Your task to perform on an android device: change keyboard looks Image 0: 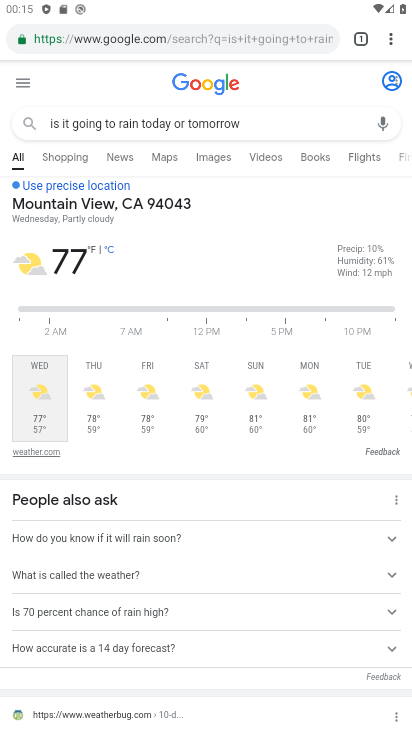
Step 0: press back button
Your task to perform on an android device: change keyboard looks Image 1: 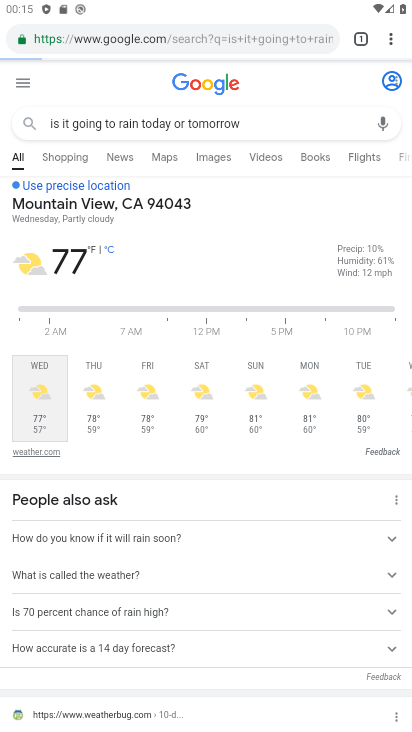
Step 1: press back button
Your task to perform on an android device: change keyboard looks Image 2: 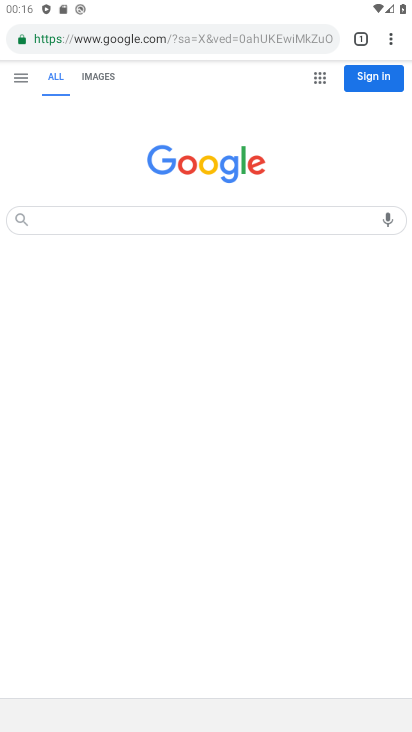
Step 2: press home button
Your task to perform on an android device: change keyboard looks Image 3: 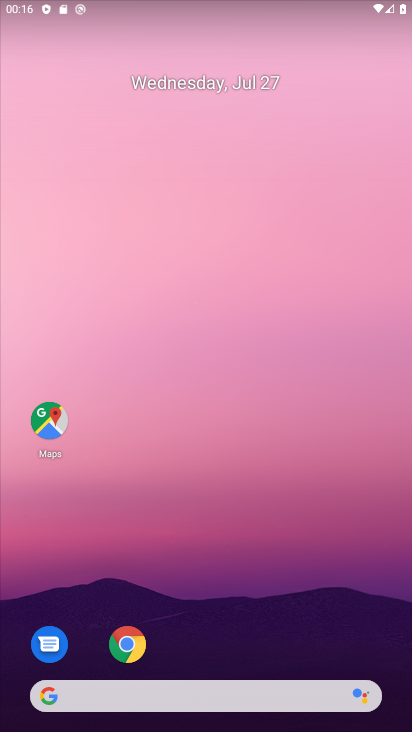
Step 3: drag from (126, 559) to (69, 146)
Your task to perform on an android device: change keyboard looks Image 4: 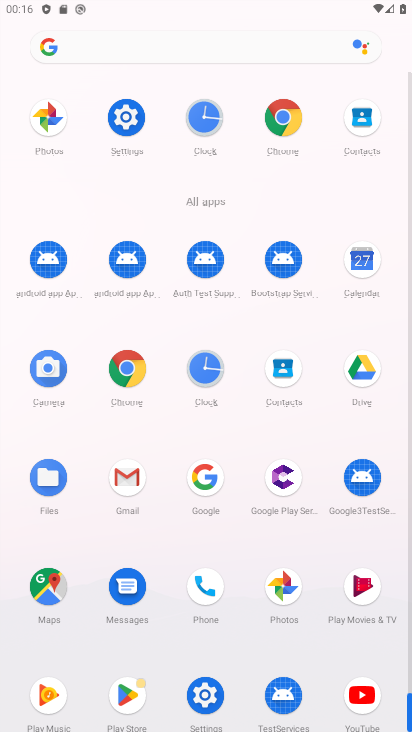
Step 4: click (206, 691)
Your task to perform on an android device: change keyboard looks Image 5: 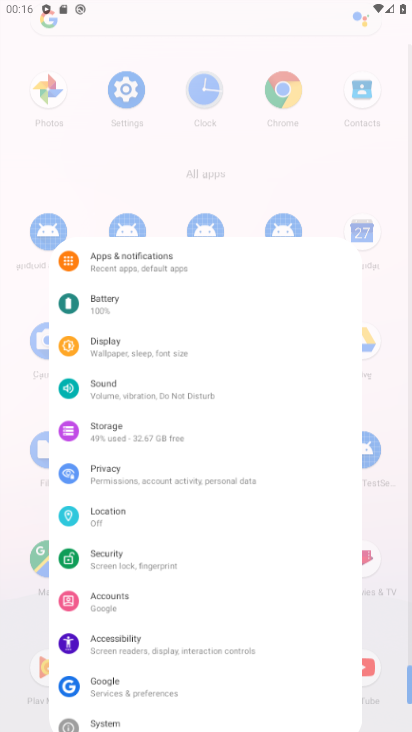
Step 5: click (204, 690)
Your task to perform on an android device: change keyboard looks Image 6: 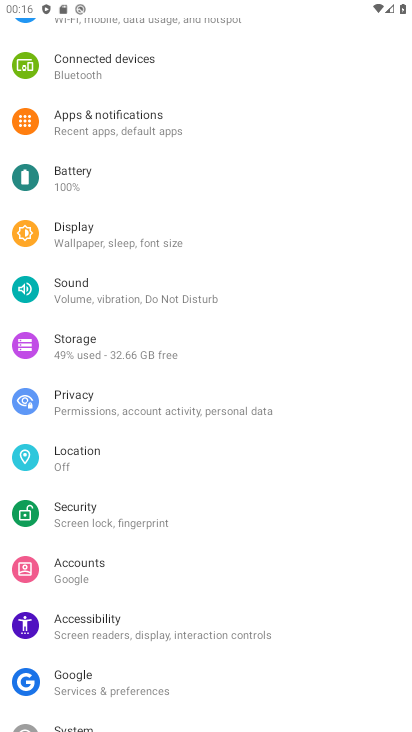
Step 6: drag from (143, 536) to (125, 278)
Your task to perform on an android device: change keyboard looks Image 7: 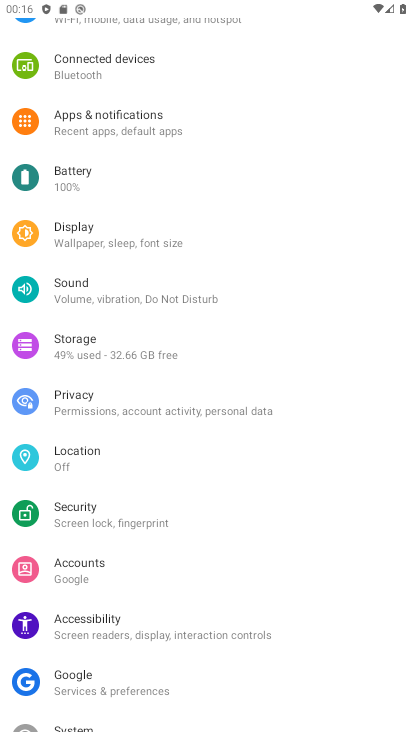
Step 7: drag from (148, 644) to (162, 200)
Your task to perform on an android device: change keyboard looks Image 8: 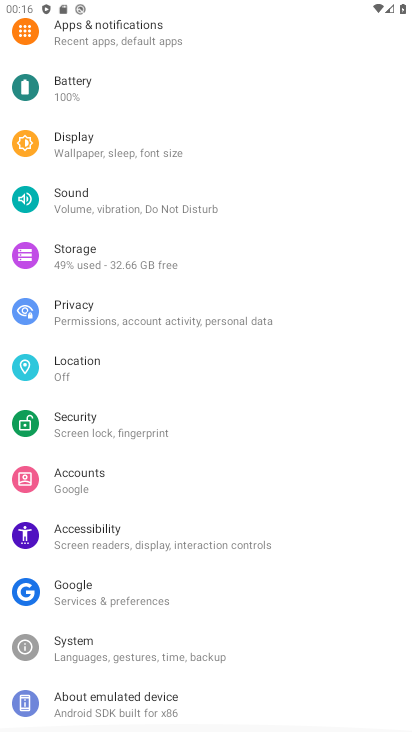
Step 8: click (210, 146)
Your task to perform on an android device: change keyboard looks Image 9: 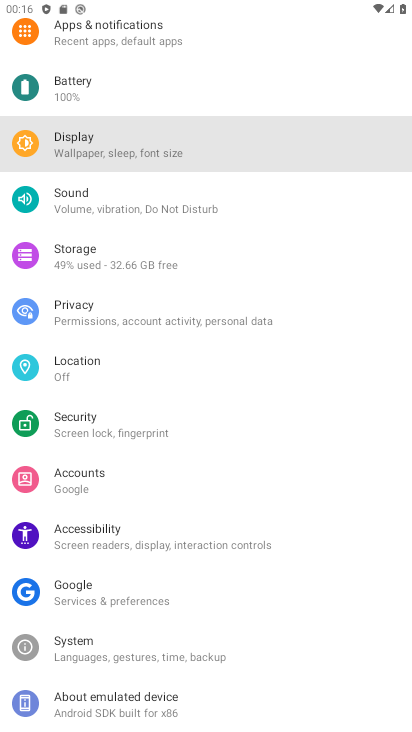
Step 9: drag from (181, 502) to (58, 312)
Your task to perform on an android device: change keyboard looks Image 10: 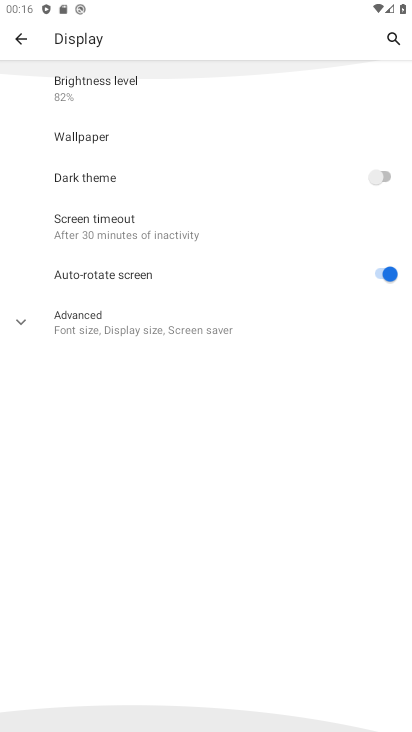
Step 10: click (92, 649)
Your task to perform on an android device: change keyboard looks Image 11: 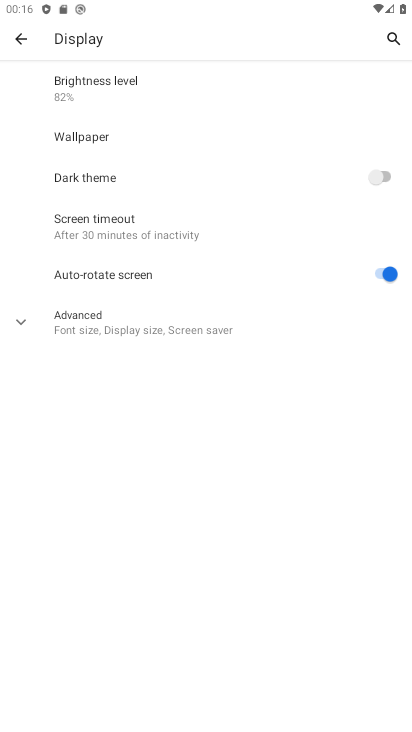
Step 11: click (36, 40)
Your task to perform on an android device: change keyboard looks Image 12: 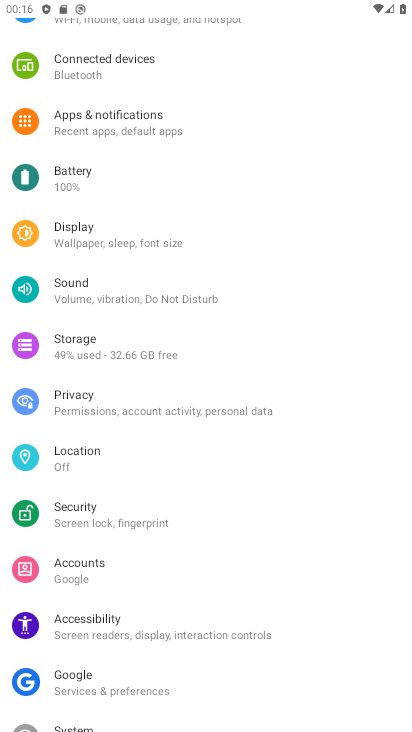
Step 12: drag from (74, 613) to (71, 256)
Your task to perform on an android device: change keyboard looks Image 13: 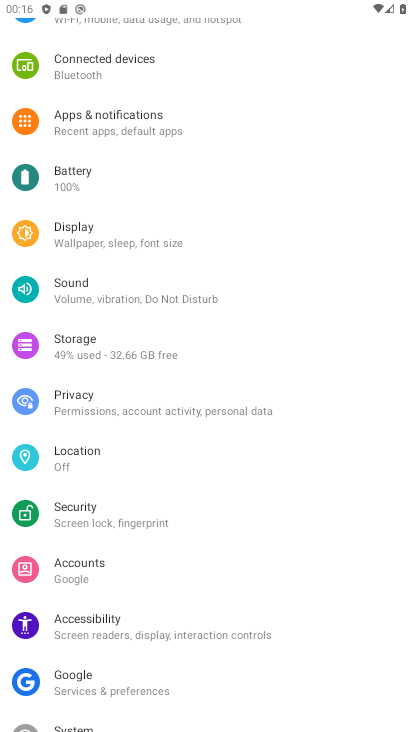
Step 13: drag from (97, 568) to (160, 83)
Your task to perform on an android device: change keyboard looks Image 14: 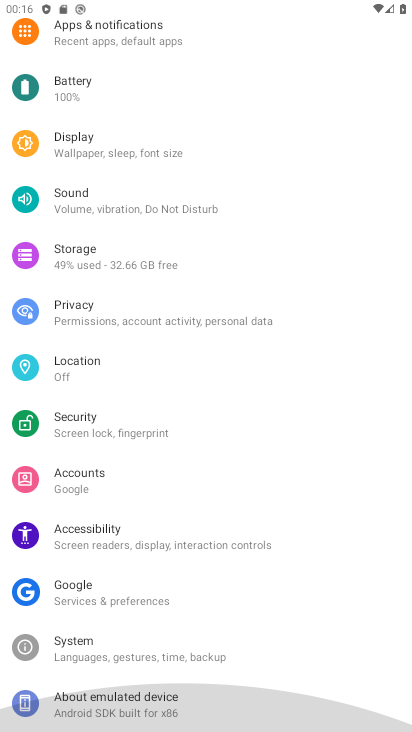
Step 14: drag from (163, 669) to (193, 194)
Your task to perform on an android device: change keyboard looks Image 15: 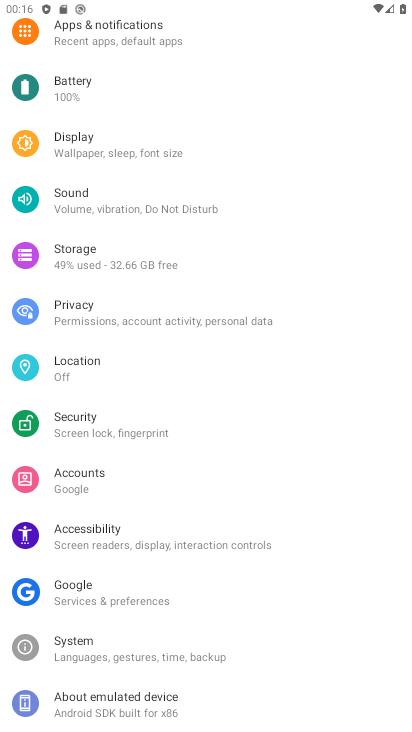
Step 15: click (65, 664)
Your task to perform on an android device: change keyboard looks Image 16: 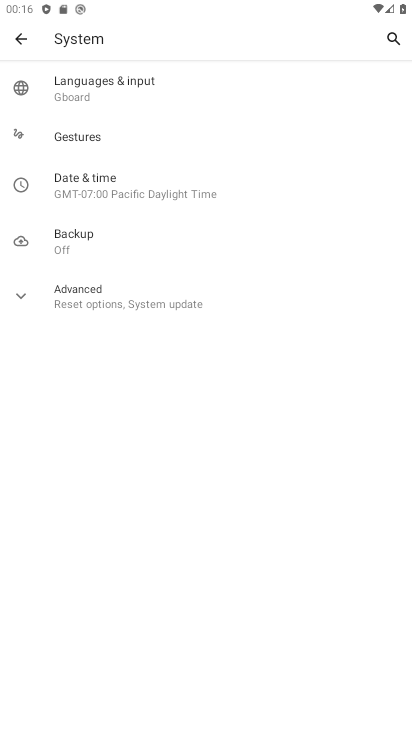
Step 16: click (87, 647)
Your task to perform on an android device: change keyboard looks Image 17: 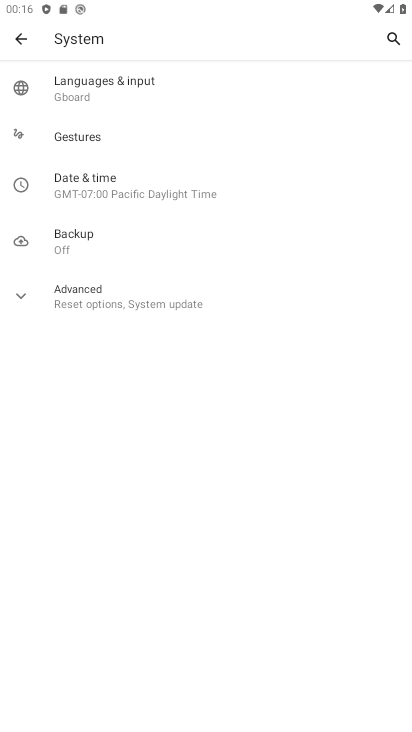
Step 17: click (91, 88)
Your task to perform on an android device: change keyboard looks Image 18: 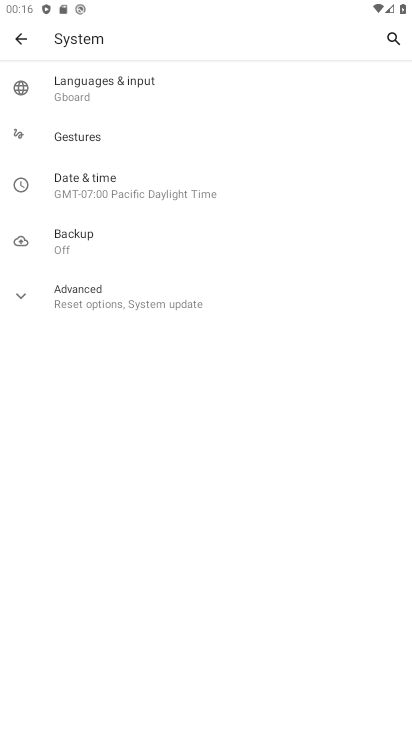
Step 18: click (88, 90)
Your task to perform on an android device: change keyboard looks Image 19: 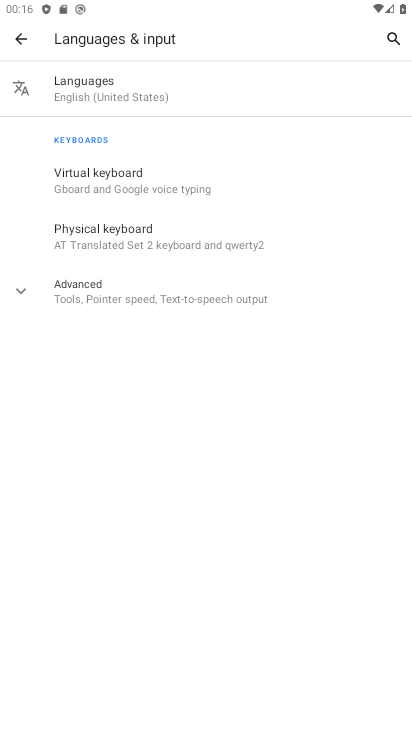
Step 19: click (86, 189)
Your task to perform on an android device: change keyboard looks Image 20: 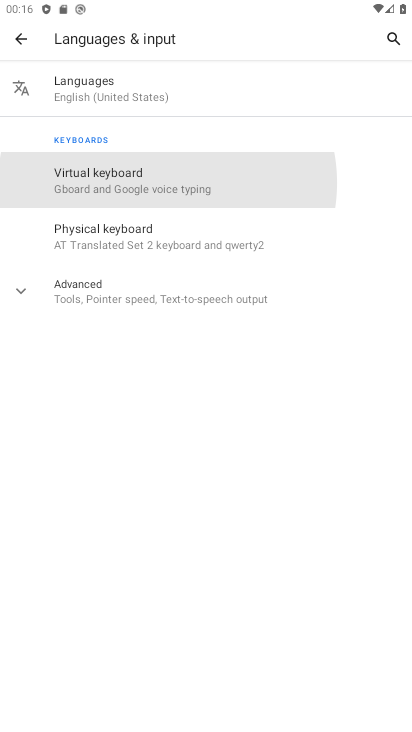
Step 20: click (85, 185)
Your task to perform on an android device: change keyboard looks Image 21: 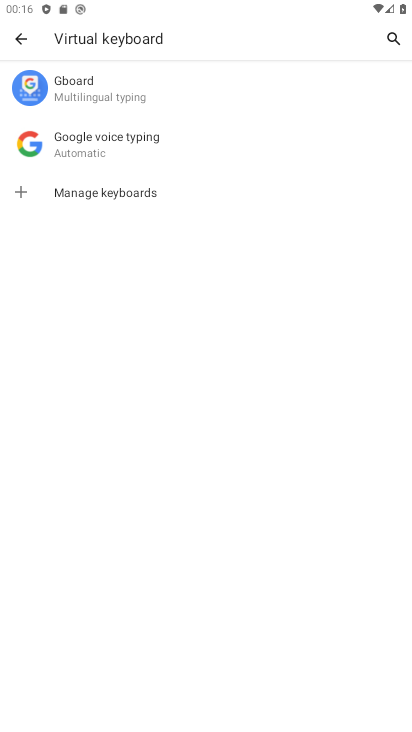
Step 21: click (60, 93)
Your task to perform on an android device: change keyboard looks Image 22: 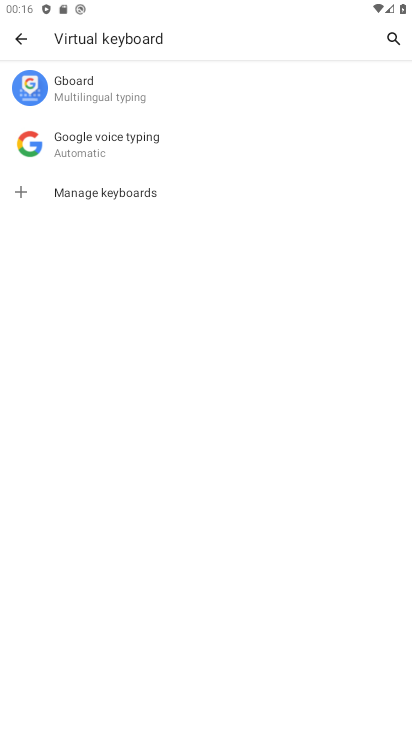
Step 22: click (62, 91)
Your task to perform on an android device: change keyboard looks Image 23: 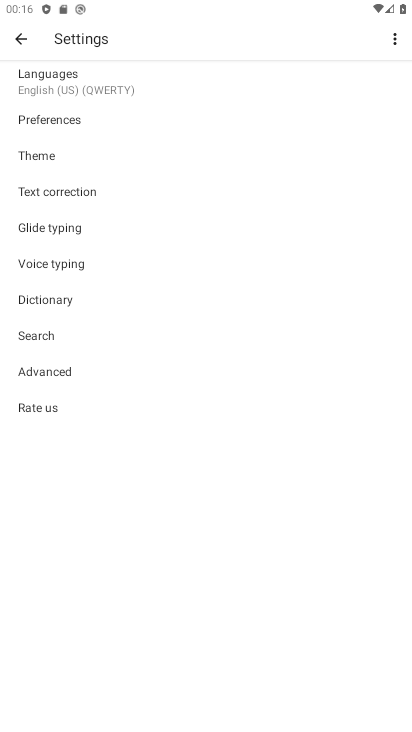
Step 23: click (32, 160)
Your task to perform on an android device: change keyboard looks Image 24: 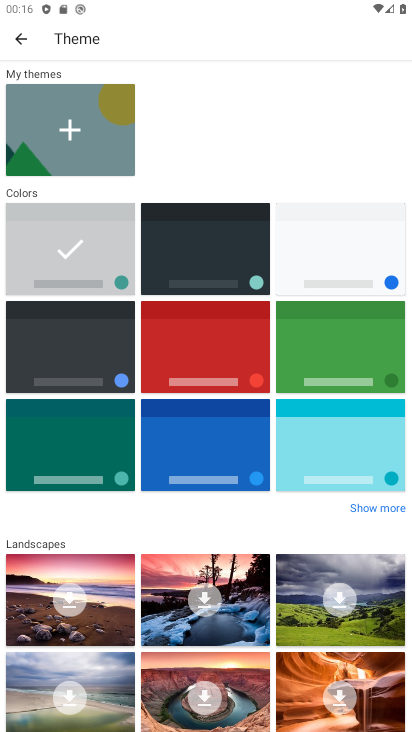
Step 24: click (70, 312)
Your task to perform on an android device: change keyboard looks Image 25: 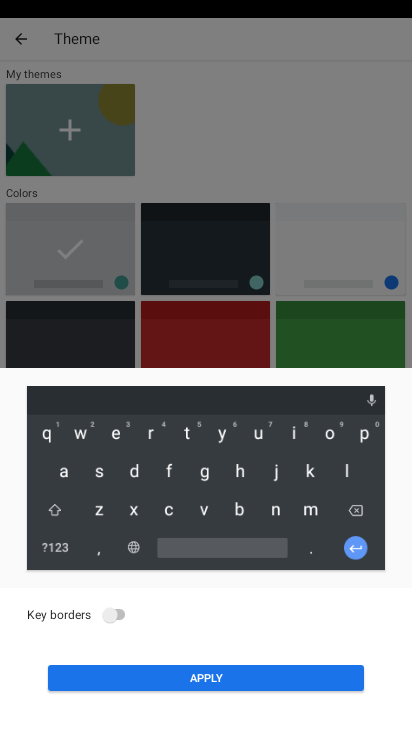
Step 25: click (204, 673)
Your task to perform on an android device: change keyboard looks Image 26: 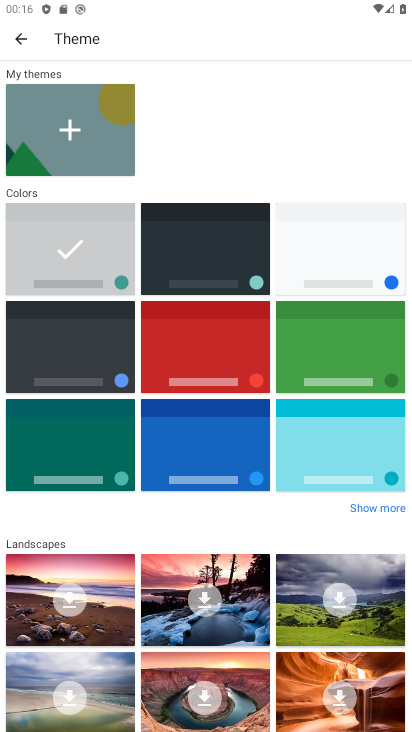
Step 26: click (211, 671)
Your task to perform on an android device: change keyboard looks Image 27: 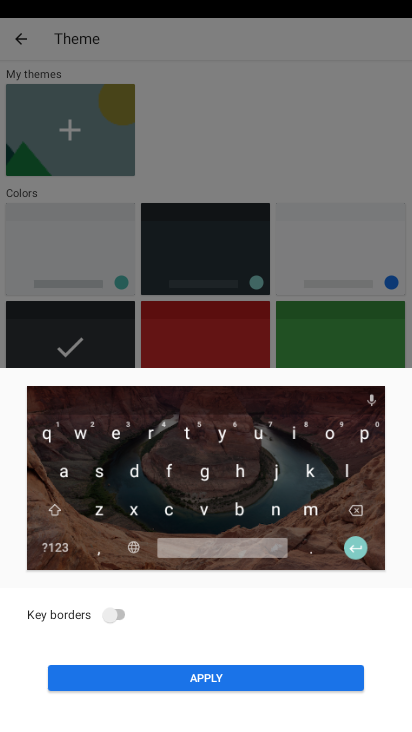
Step 27: task complete